Your task to perform on an android device: toggle show notifications on the lock screen Image 0: 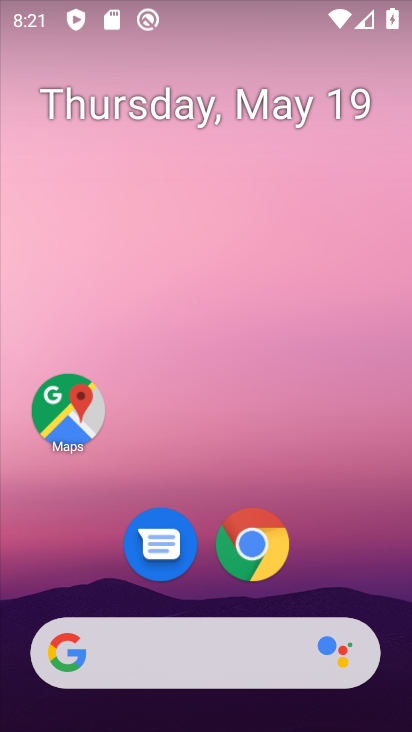
Step 0: drag from (379, 627) to (364, 6)
Your task to perform on an android device: toggle show notifications on the lock screen Image 1: 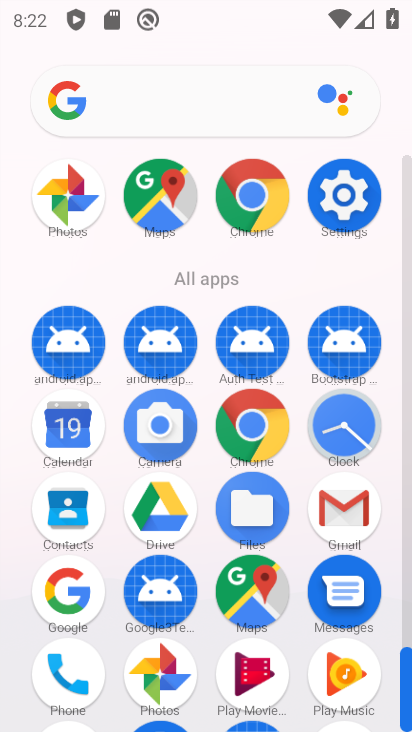
Step 1: click (331, 196)
Your task to perform on an android device: toggle show notifications on the lock screen Image 2: 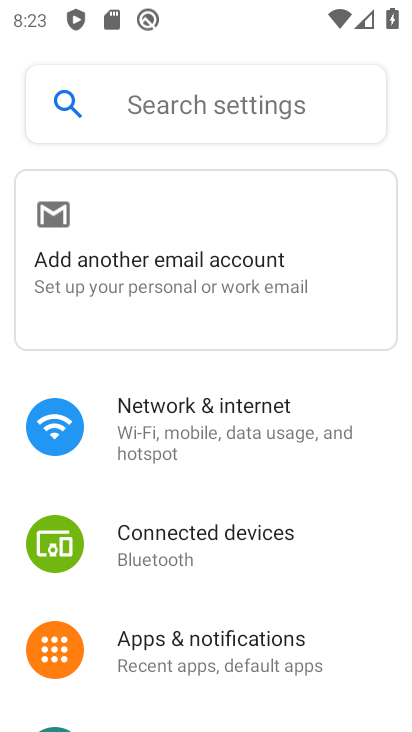
Step 2: drag from (227, 645) to (229, 322)
Your task to perform on an android device: toggle show notifications on the lock screen Image 3: 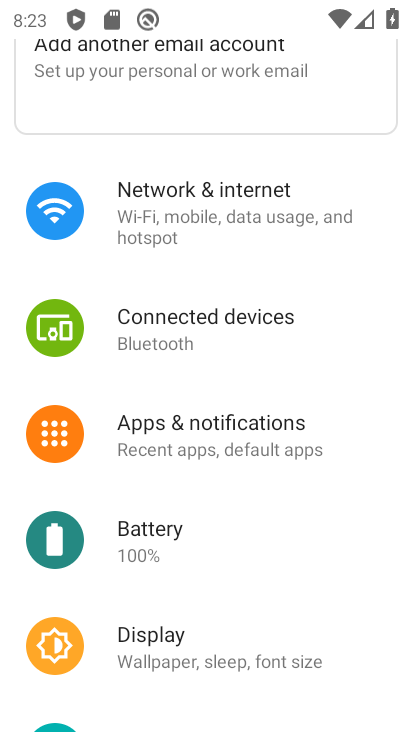
Step 3: click (191, 438)
Your task to perform on an android device: toggle show notifications on the lock screen Image 4: 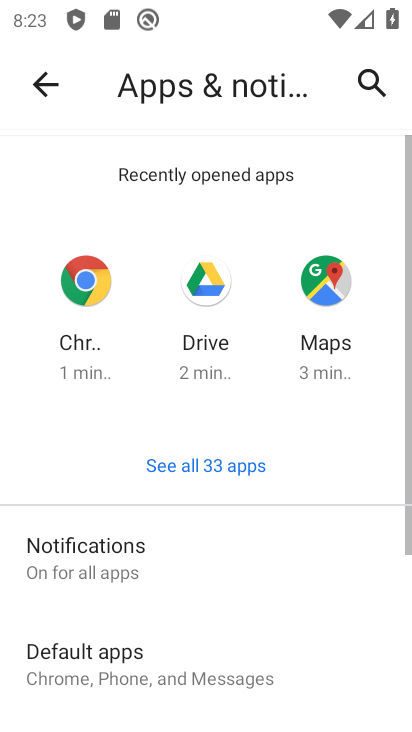
Step 4: click (160, 552)
Your task to perform on an android device: toggle show notifications on the lock screen Image 5: 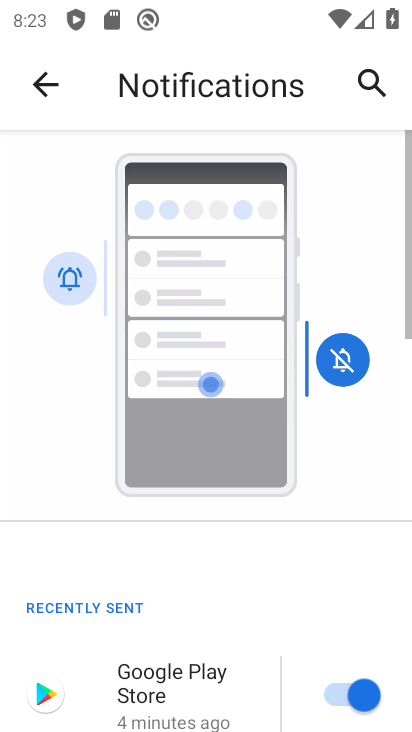
Step 5: drag from (161, 658) to (206, 83)
Your task to perform on an android device: toggle show notifications on the lock screen Image 6: 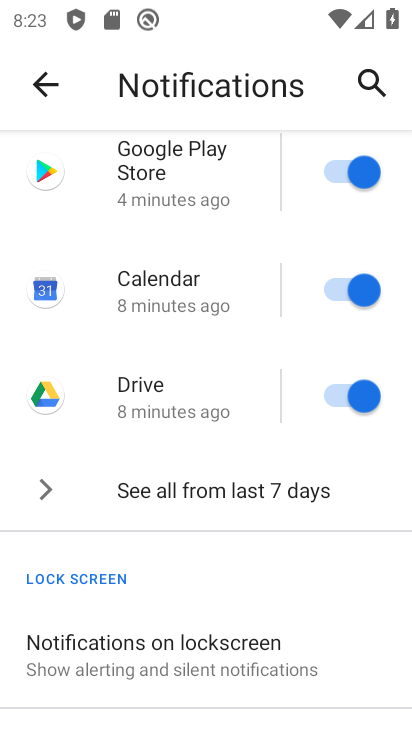
Step 6: click (265, 654)
Your task to perform on an android device: toggle show notifications on the lock screen Image 7: 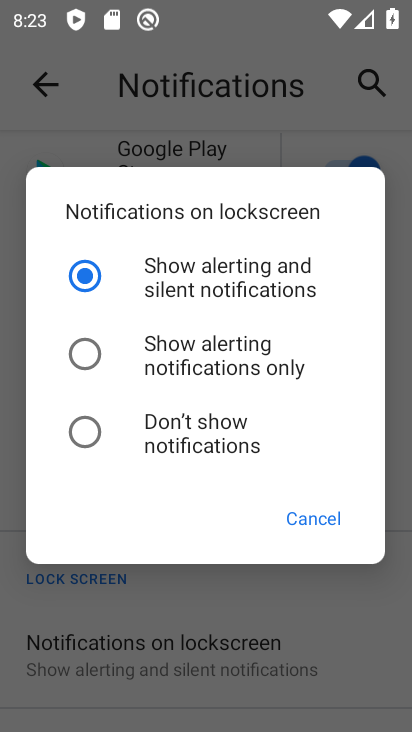
Step 7: click (87, 441)
Your task to perform on an android device: toggle show notifications on the lock screen Image 8: 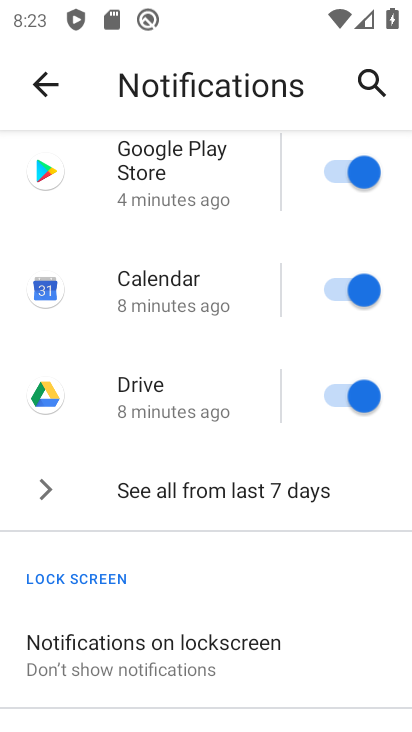
Step 8: task complete